Your task to perform on an android device: Open Yahoo.com Image 0: 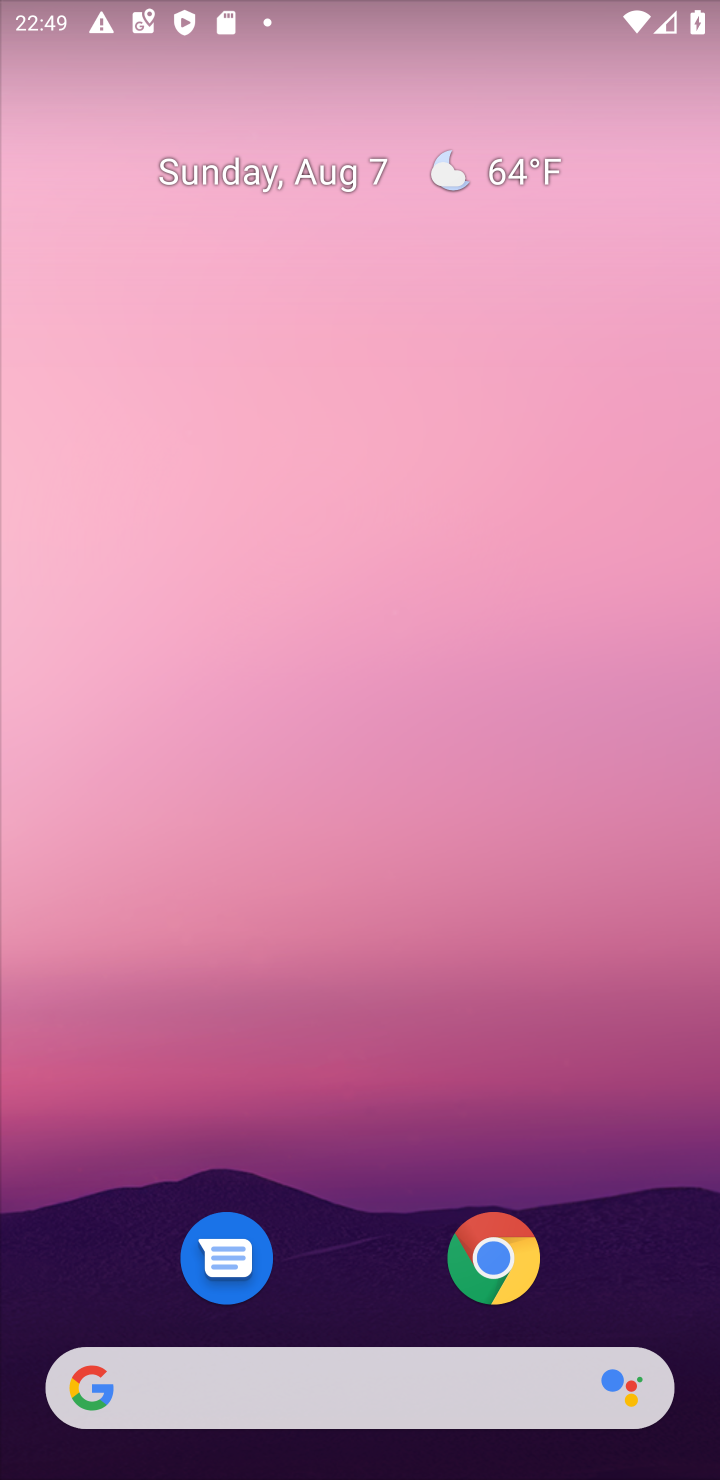
Step 0: press home button
Your task to perform on an android device: Open Yahoo.com Image 1: 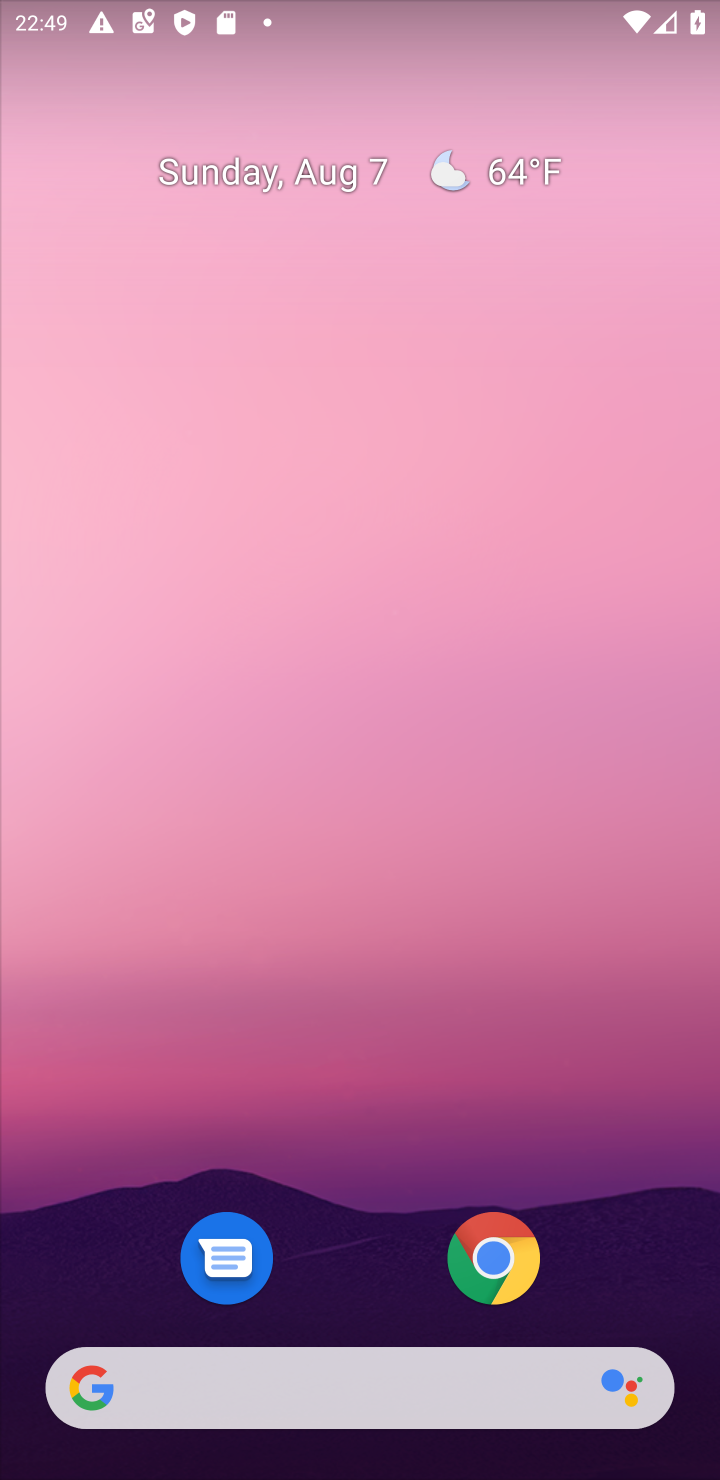
Step 1: press home button
Your task to perform on an android device: Open Yahoo.com Image 2: 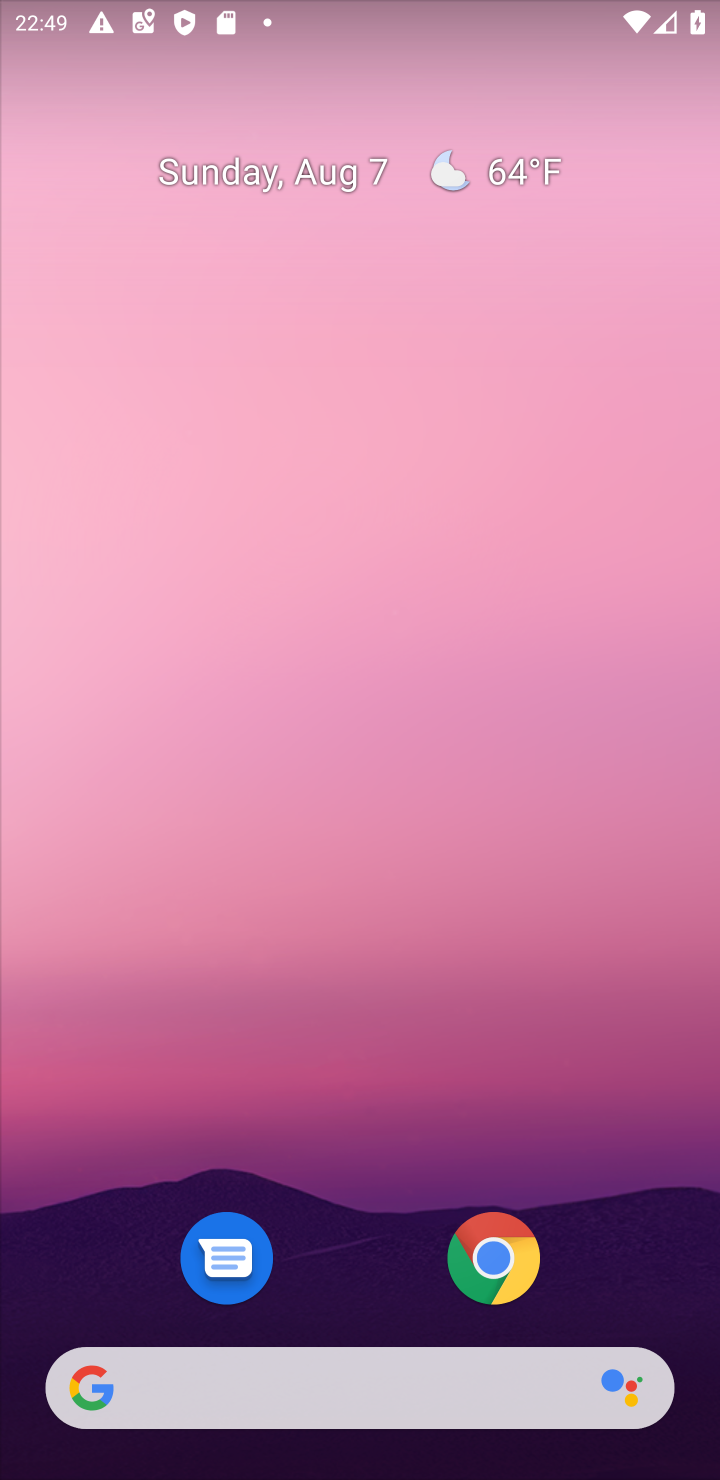
Step 2: press home button
Your task to perform on an android device: Open Yahoo.com Image 3: 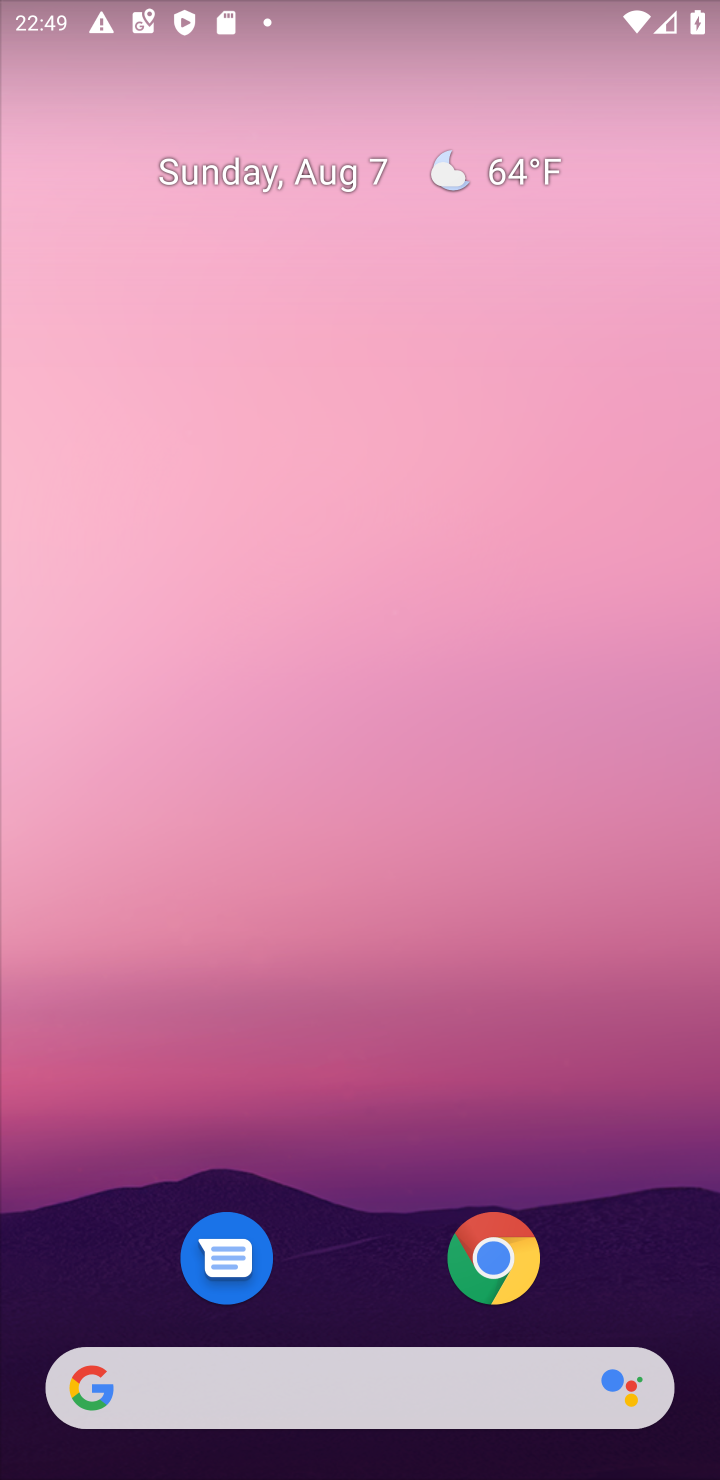
Step 3: drag from (422, 1231) to (428, 327)
Your task to perform on an android device: Open Yahoo.com Image 4: 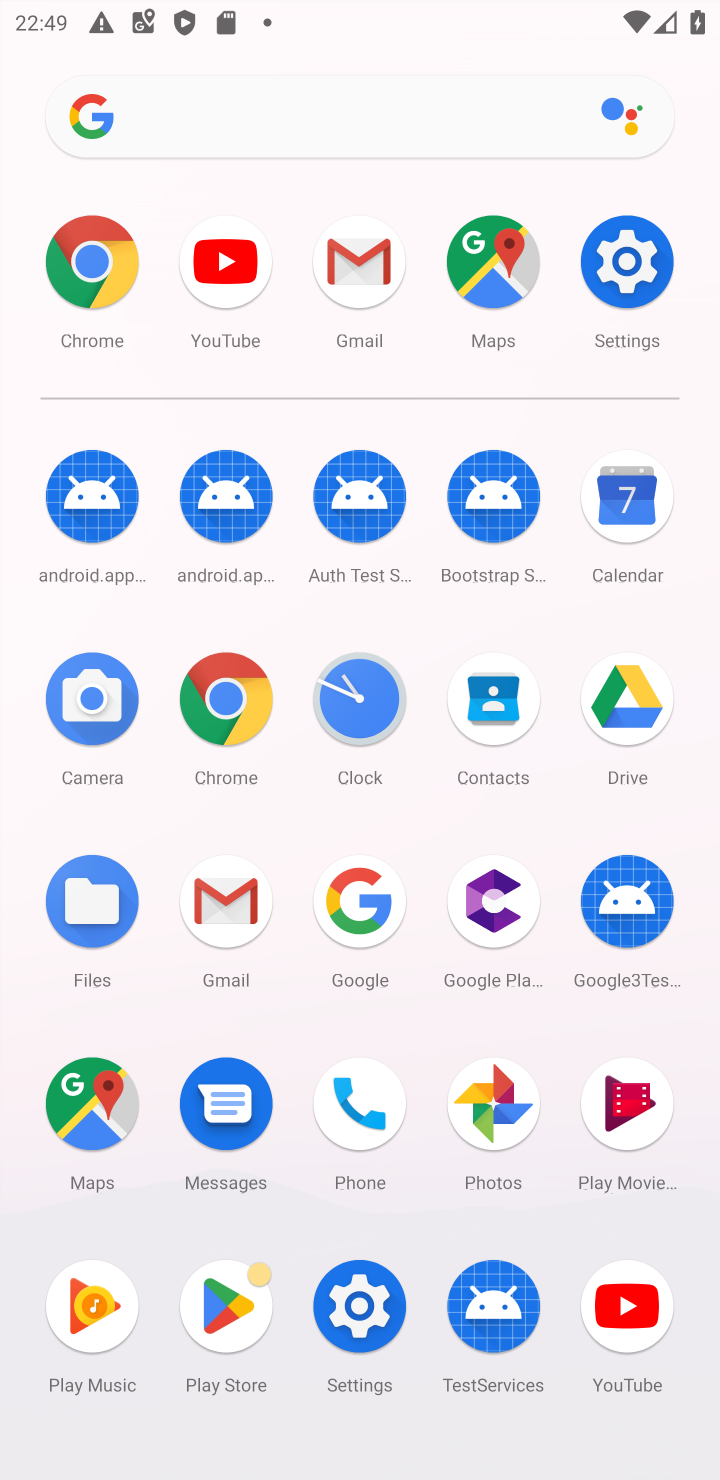
Step 4: click (89, 270)
Your task to perform on an android device: Open Yahoo.com Image 5: 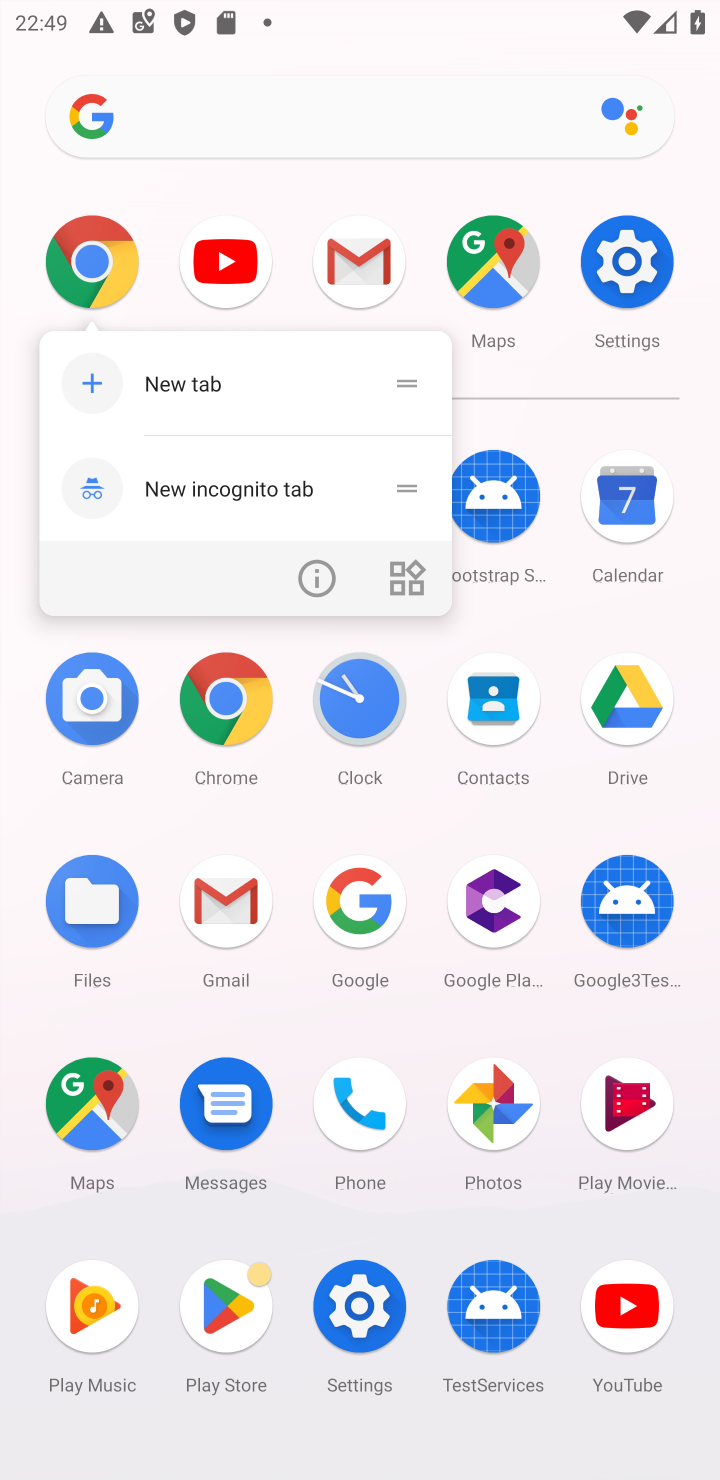
Step 5: click (89, 270)
Your task to perform on an android device: Open Yahoo.com Image 6: 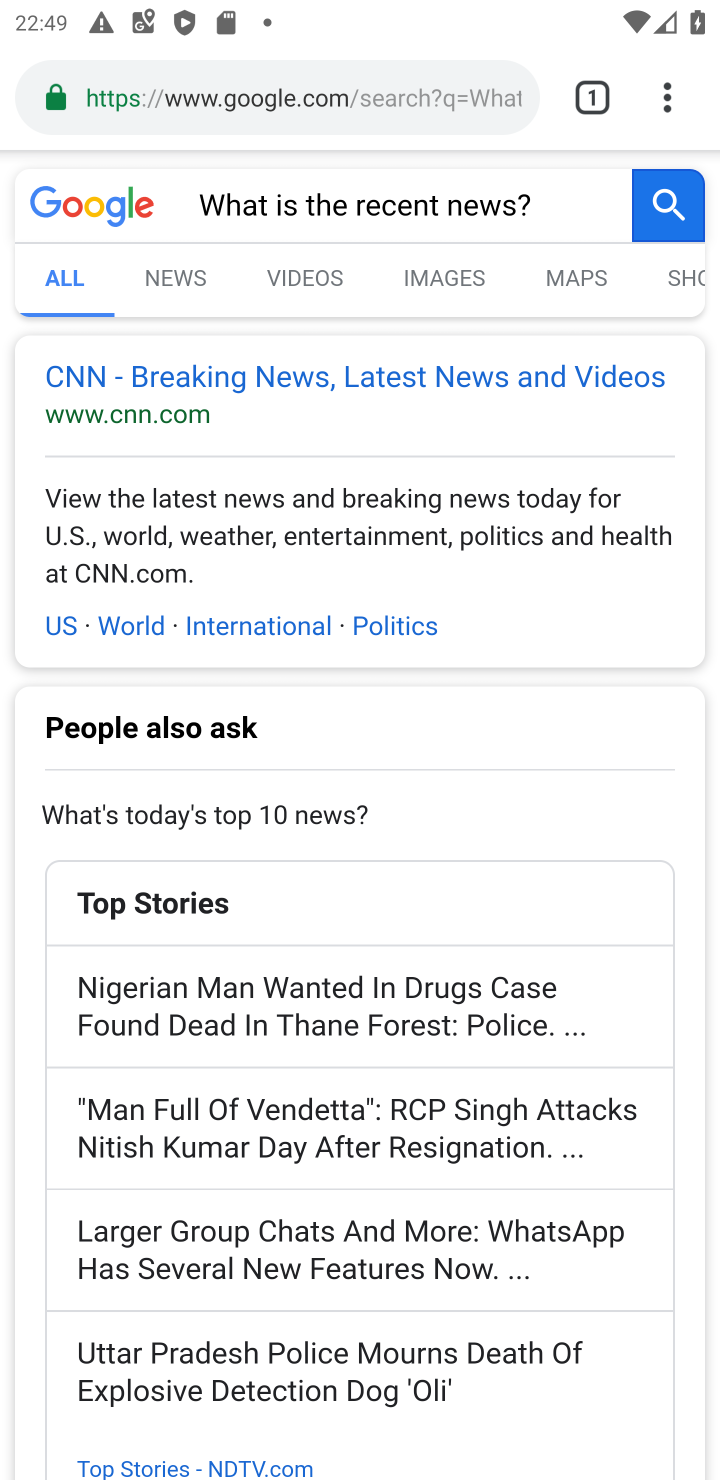
Step 6: click (432, 98)
Your task to perform on an android device: Open Yahoo.com Image 7: 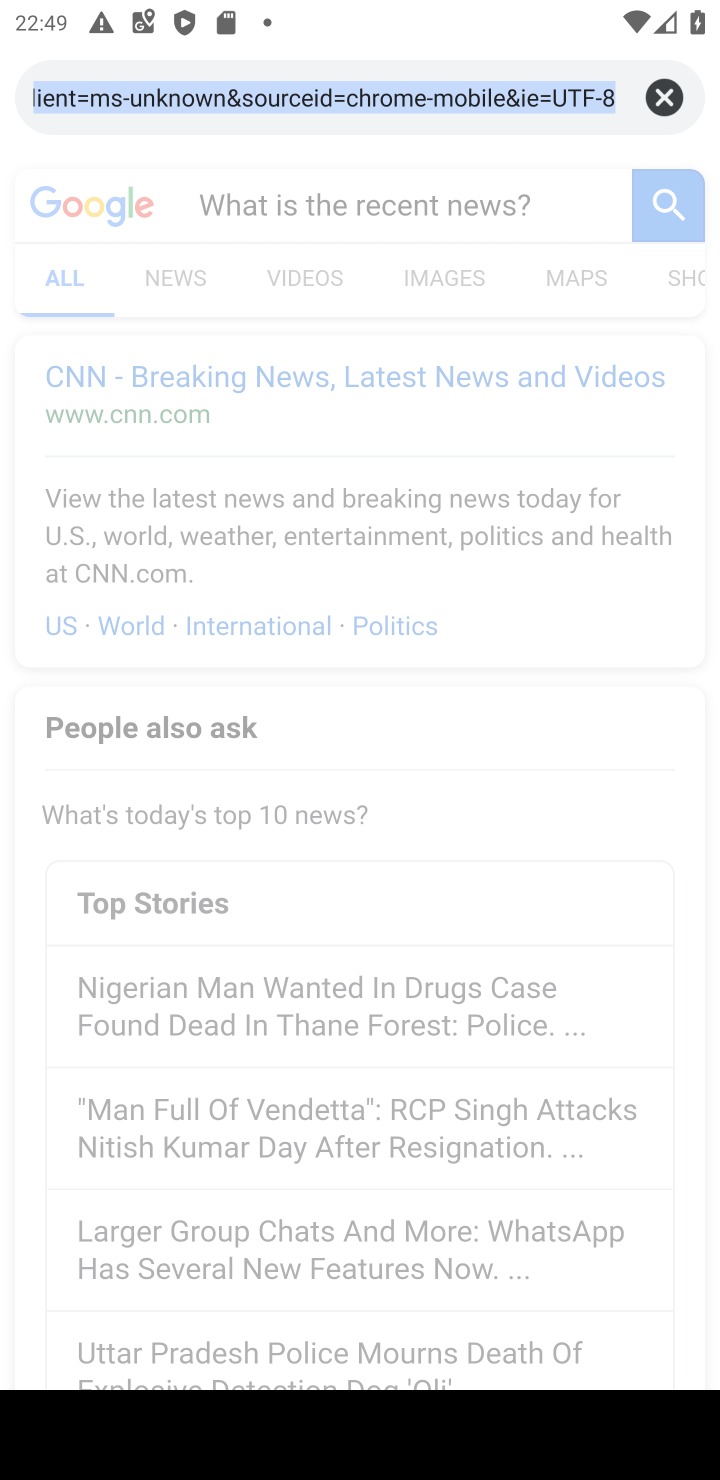
Step 7: type "Yahoo.com"
Your task to perform on an android device: Open Yahoo.com Image 8: 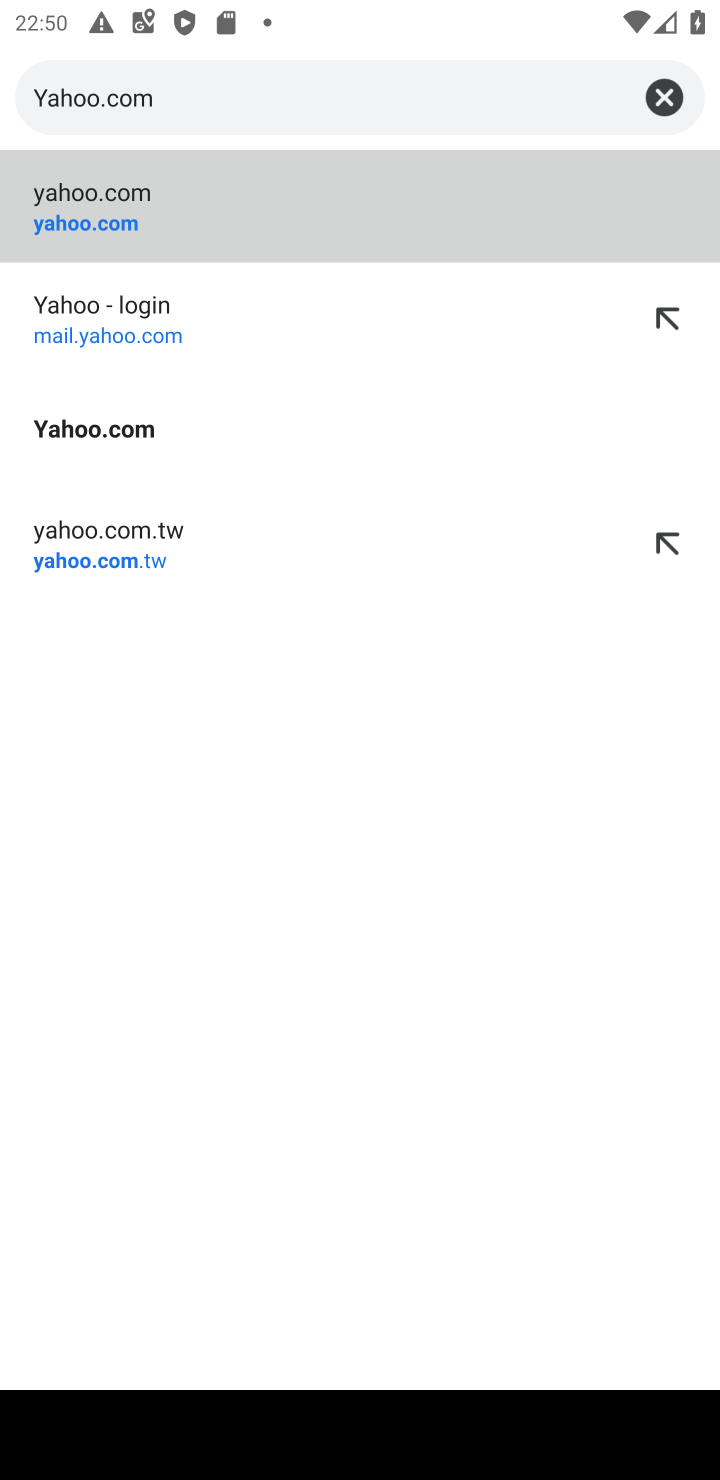
Step 8: click (121, 211)
Your task to perform on an android device: Open Yahoo.com Image 9: 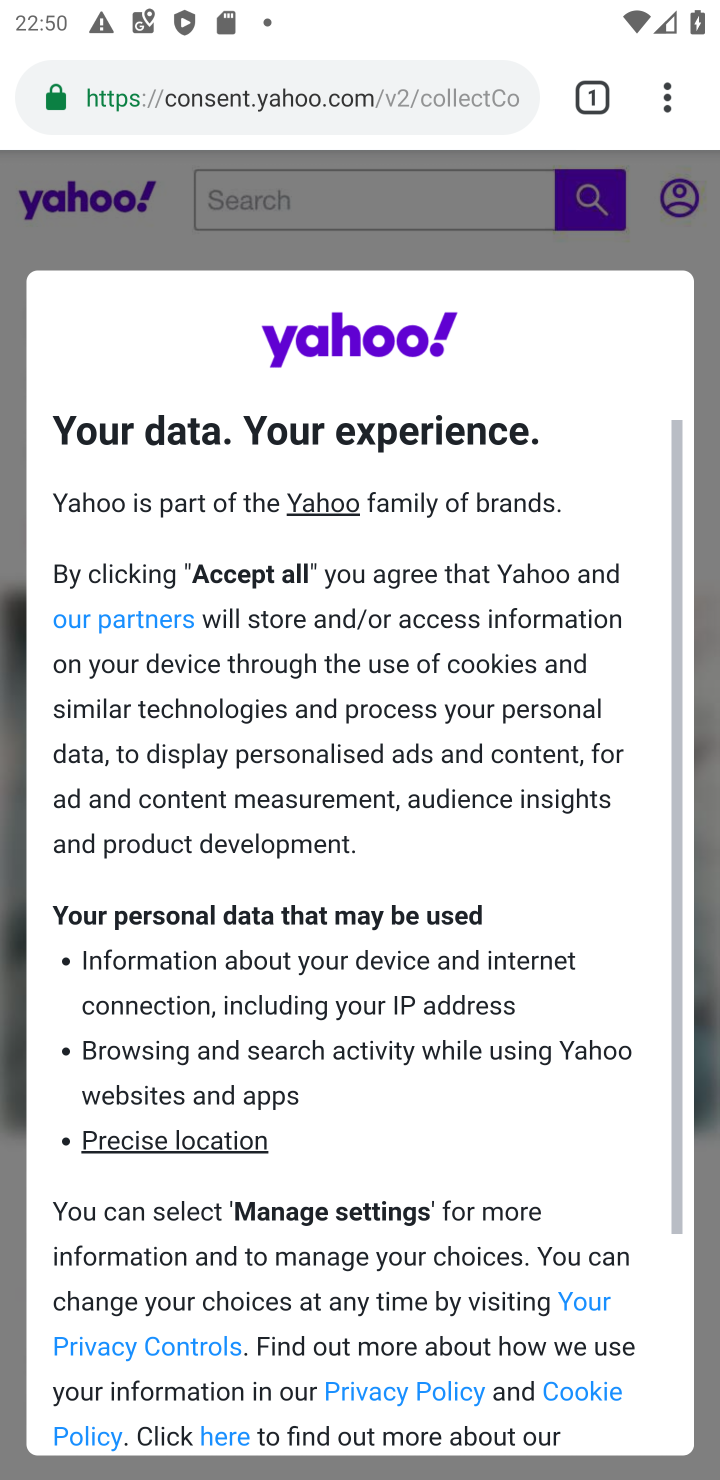
Step 9: task complete